Your task to perform on an android device: Open ESPN.com Image 0: 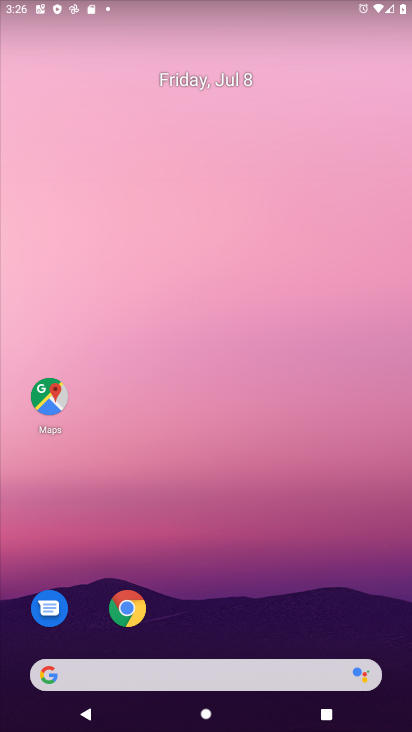
Step 0: drag from (257, 665) to (284, 6)
Your task to perform on an android device: Open ESPN.com Image 1: 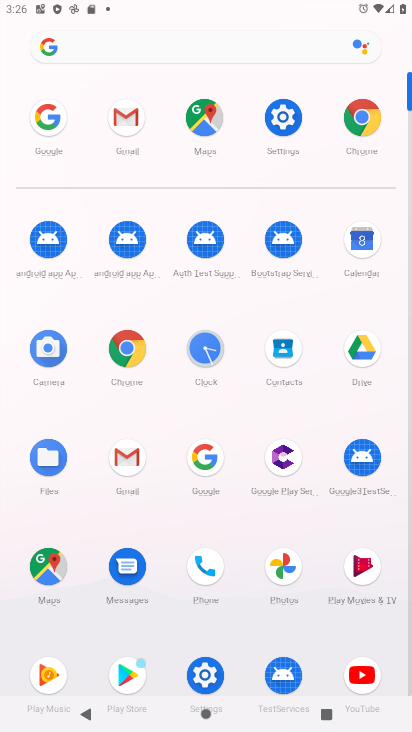
Step 1: click (132, 342)
Your task to perform on an android device: Open ESPN.com Image 2: 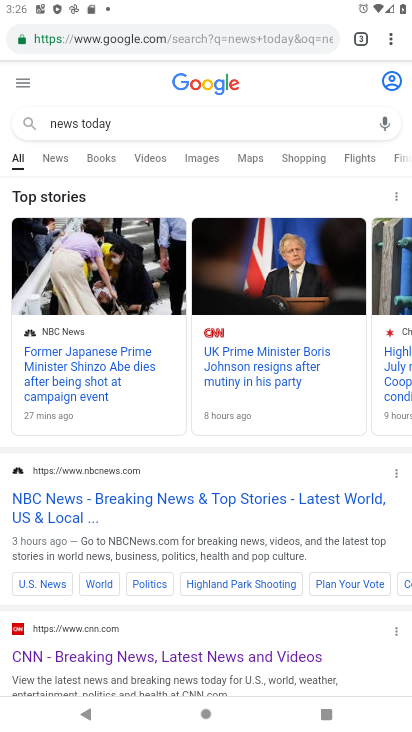
Step 2: click (153, 38)
Your task to perform on an android device: Open ESPN.com Image 3: 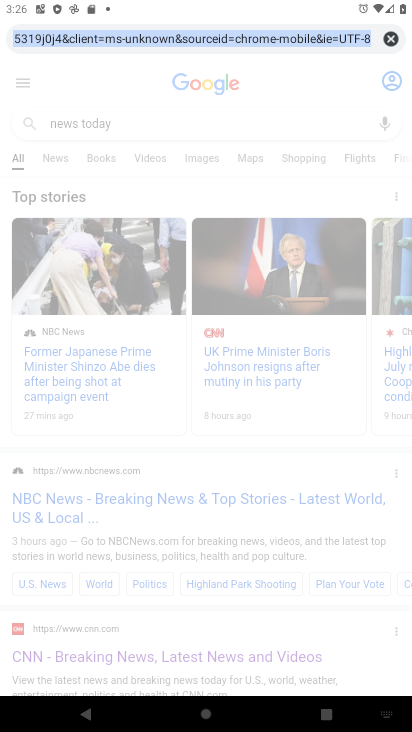
Step 3: type "espn.com"
Your task to perform on an android device: Open ESPN.com Image 4: 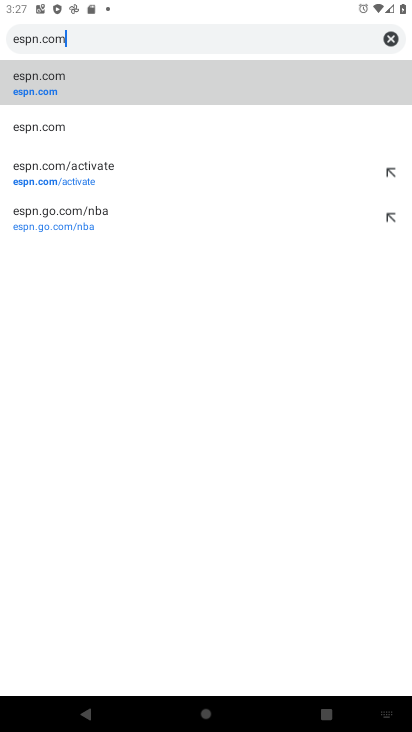
Step 4: click (105, 95)
Your task to perform on an android device: Open ESPN.com Image 5: 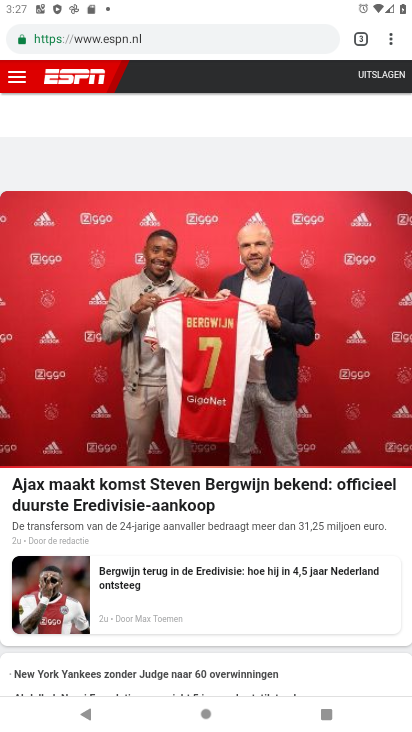
Step 5: task complete